Your task to perform on an android device: see tabs open on other devices in the chrome app Image 0: 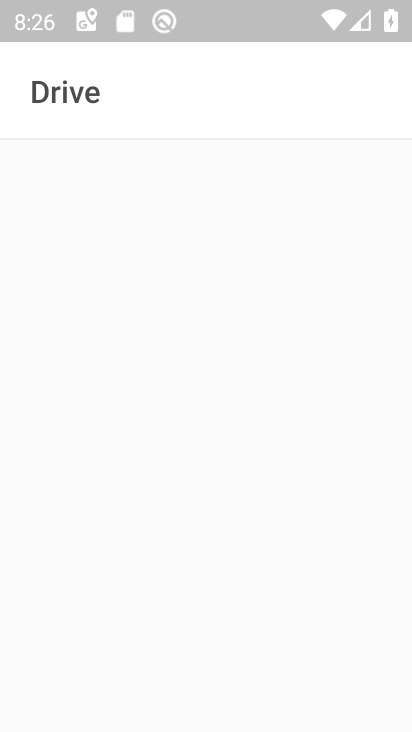
Step 0: press home button
Your task to perform on an android device: see tabs open on other devices in the chrome app Image 1: 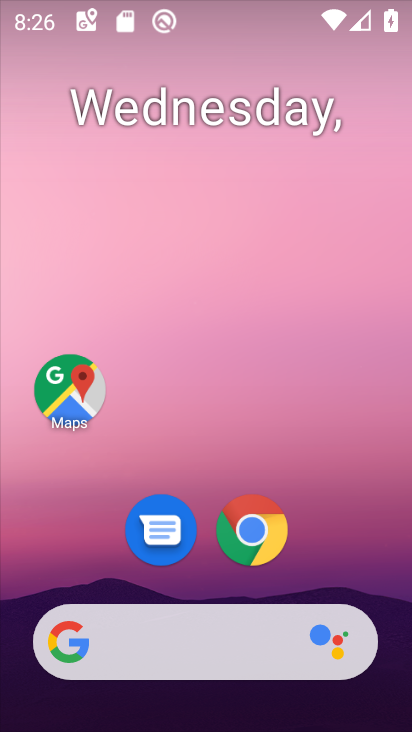
Step 1: drag from (396, 647) to (362, 10)
Your task to perform on an android device: see tabs open on other devices in the chrome app Image 2: 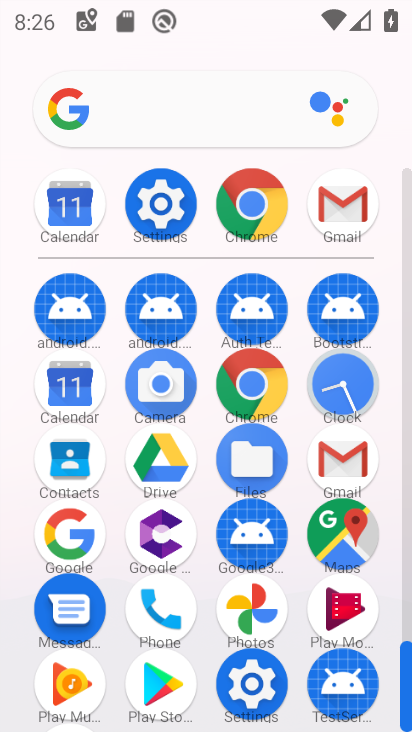
Step 2: click (246, 214)
Your task to perform on an android device: see tabs open on other devices in the chrome app Image 3: 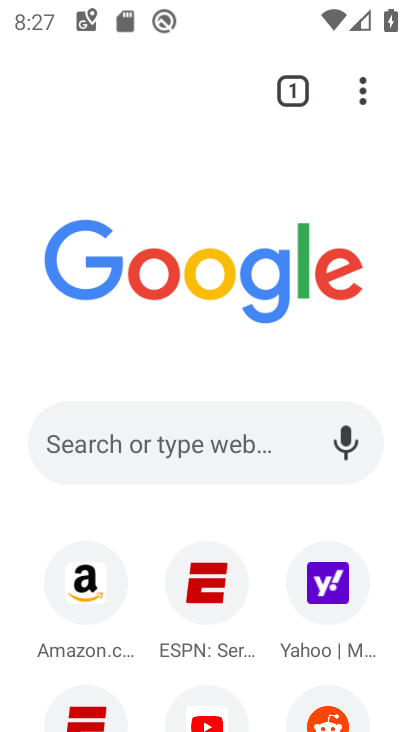
Step 3: task complete